Your task to perform on an android device: When is my next meeting? Image 0: 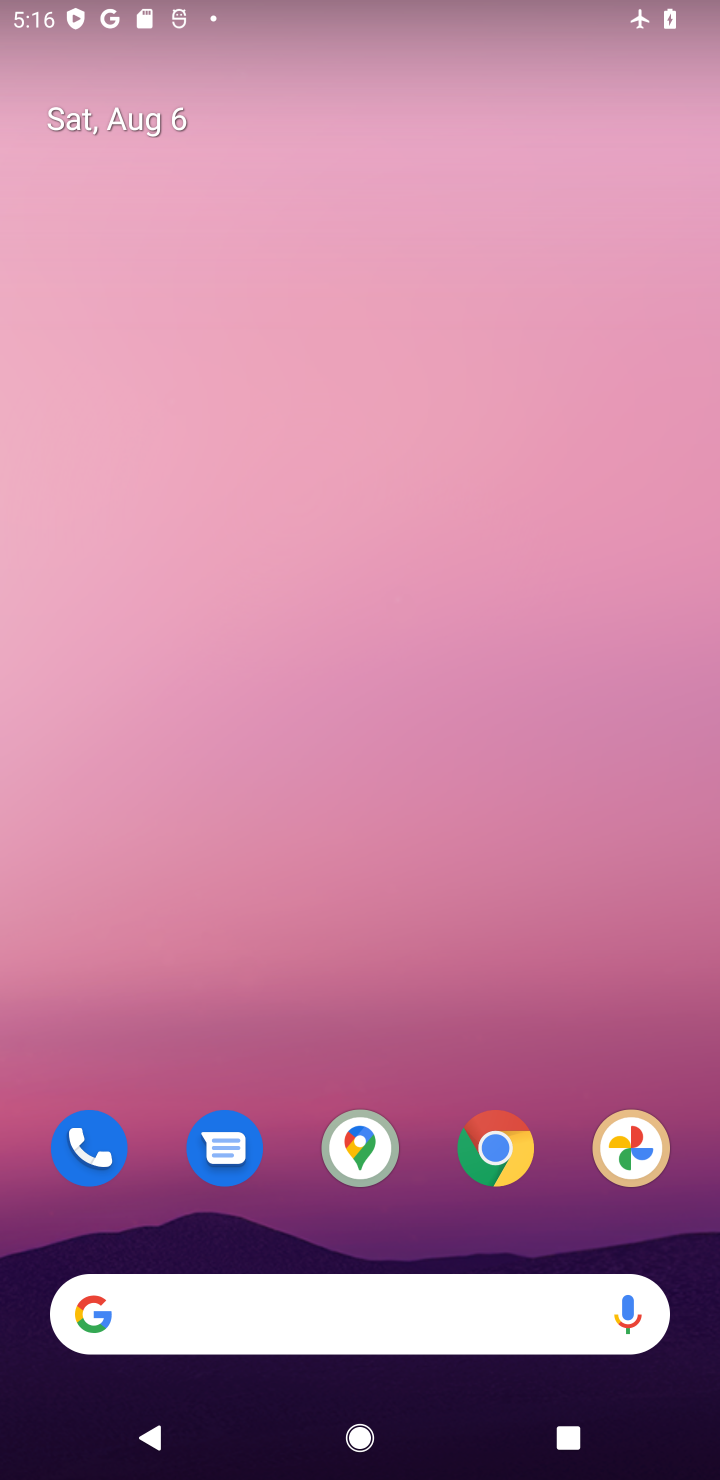
Step 0: drag from (372, 1250) to (695, 858)
Your task to perform on an android device: When is my next meeting? Image 1: 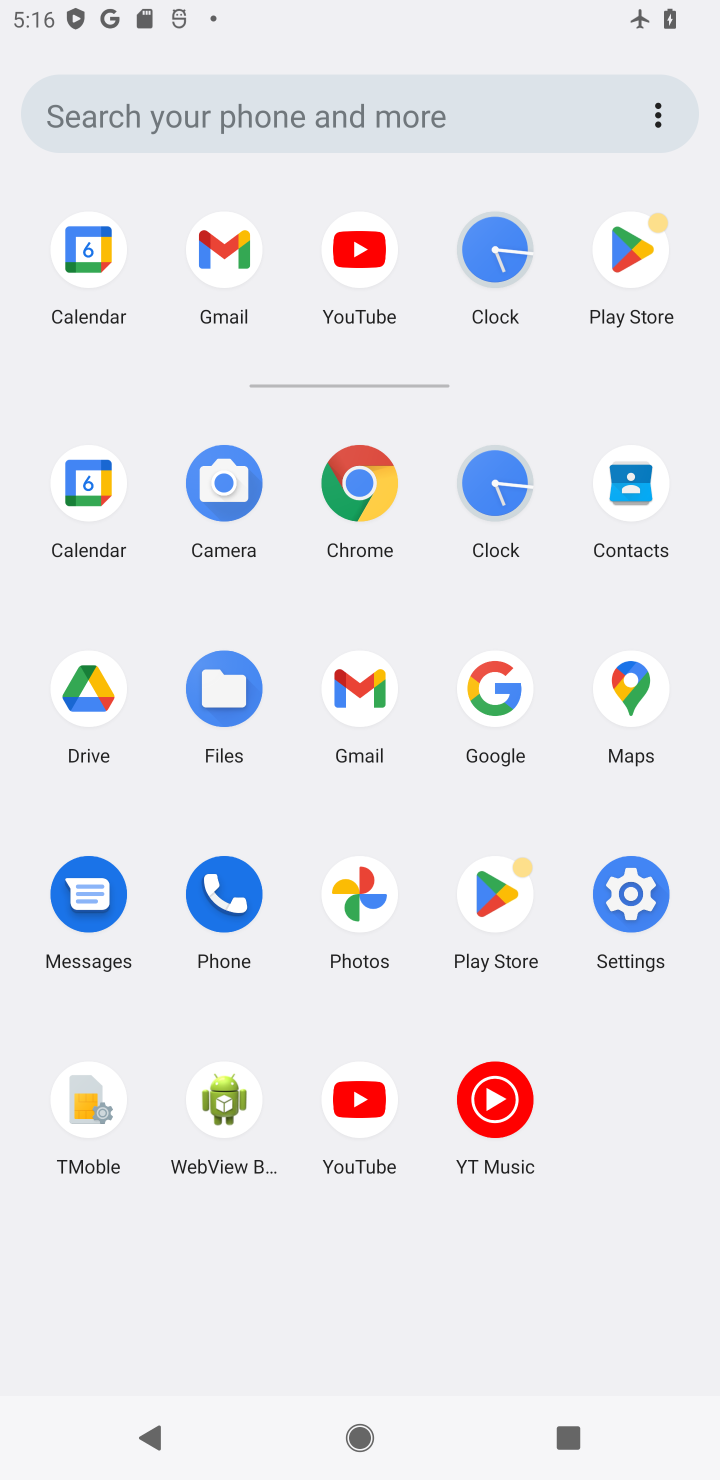
Step 1: drag from (616, 513) to (597, 94)
Your task to perform on an android device: When is my next meeting? Image 2: 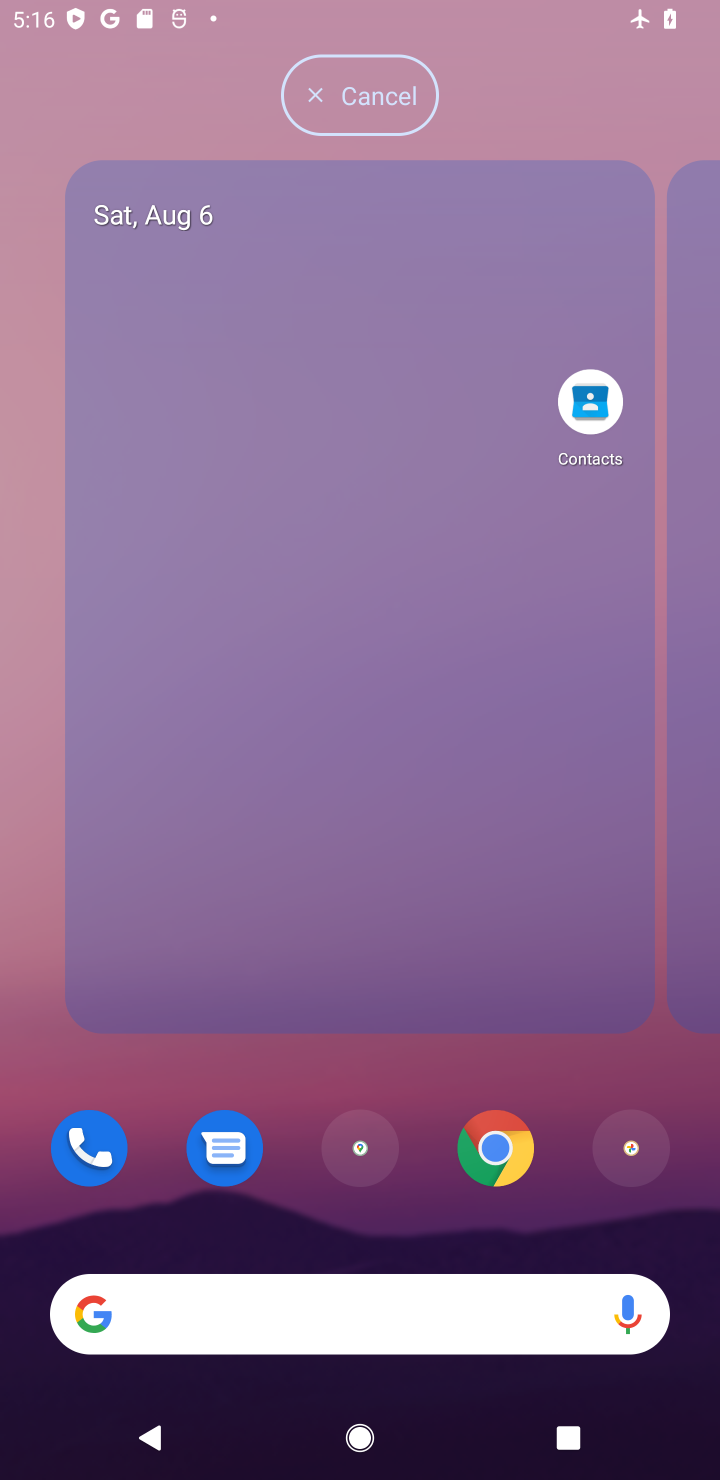
Step 2: click (511, 857)
Your task to perform on an android device: When is my next meeting? Image 3: 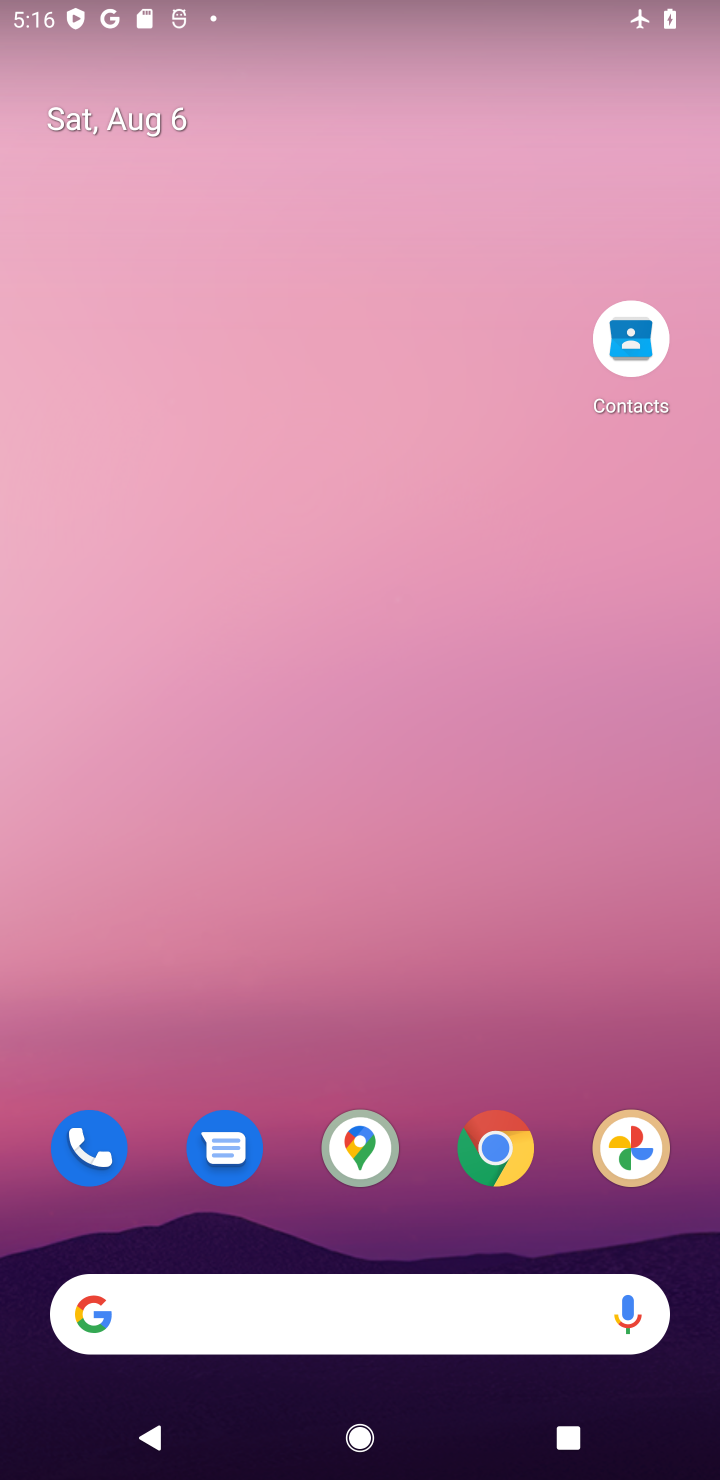
Step 3: drag from (344, 1260) to (453, 35)
Your task to perform on an android device: When is my next meeting? Image 4: 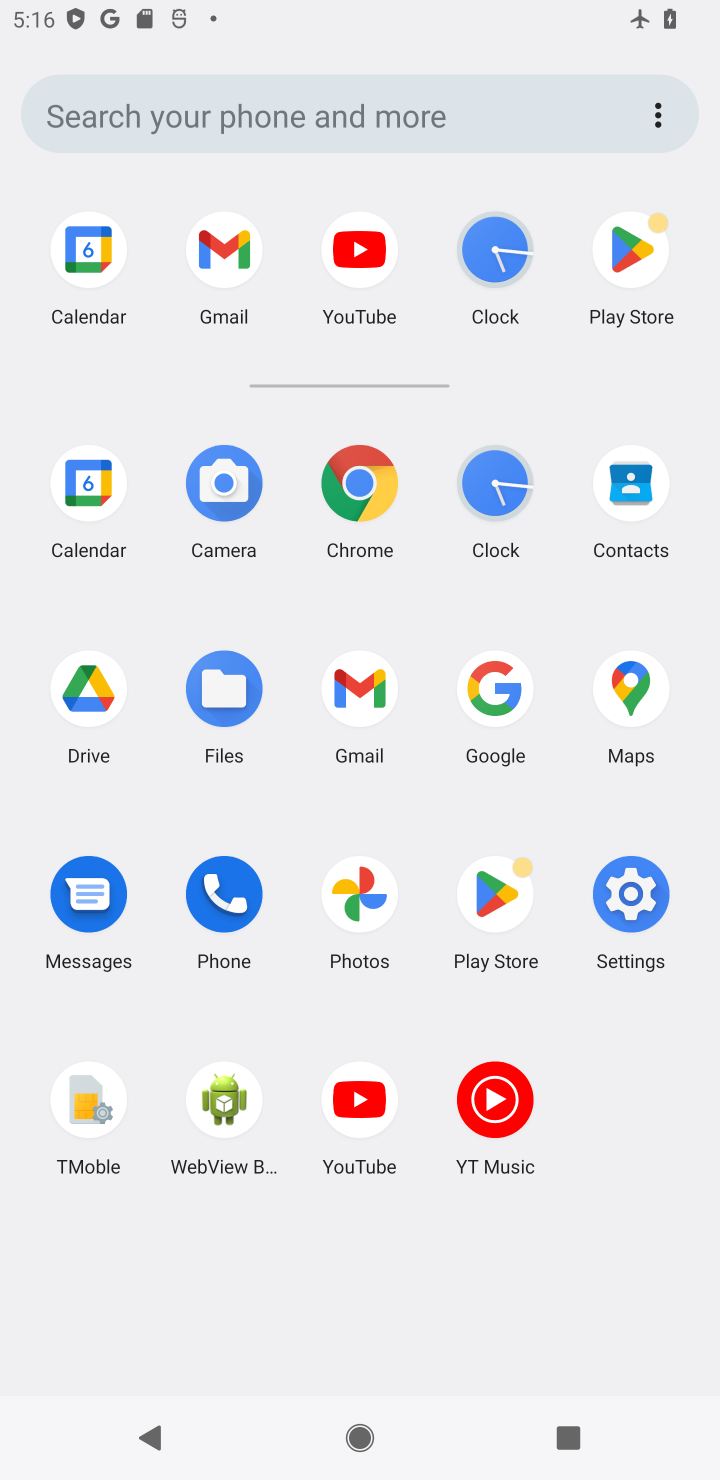
Step 4: click (105, 485)
Your task to perform on an android device: When is my next meeting? Image 5: 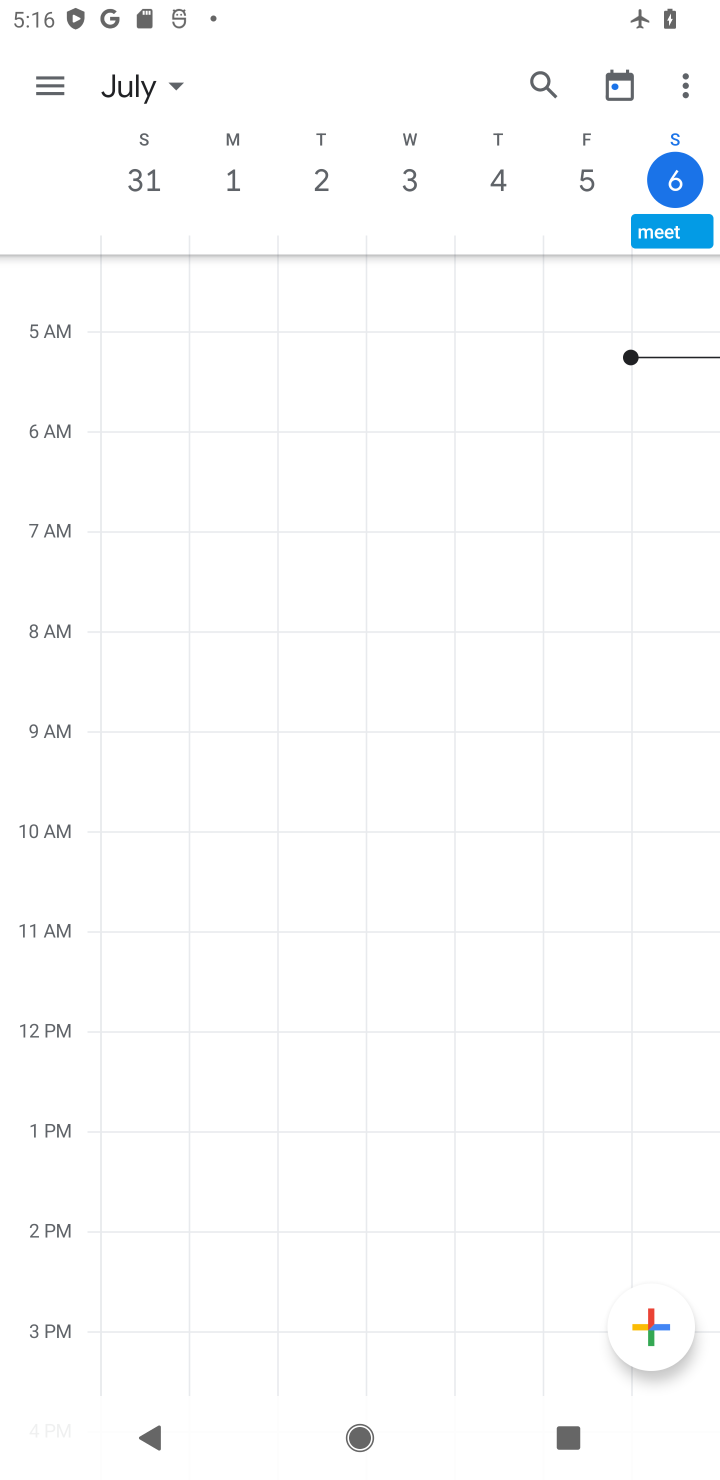
Step 5: task complete